Your task to perform on an android device: move an email to a new category in the gmail app Image 0: 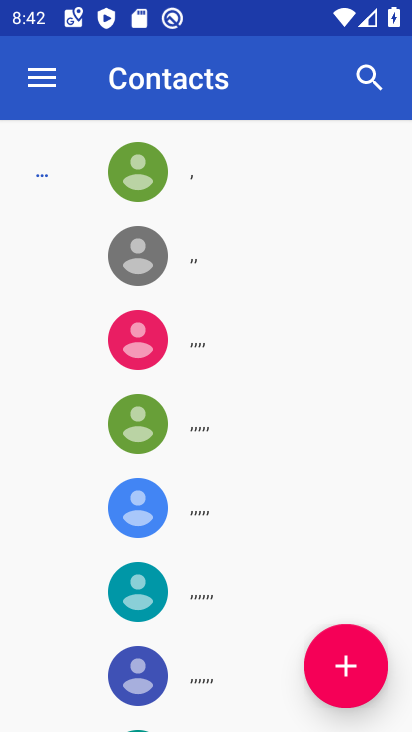
Step 0: press home button
Your task to perform on an android device: move an email to a new category in the gmail app Image 1: 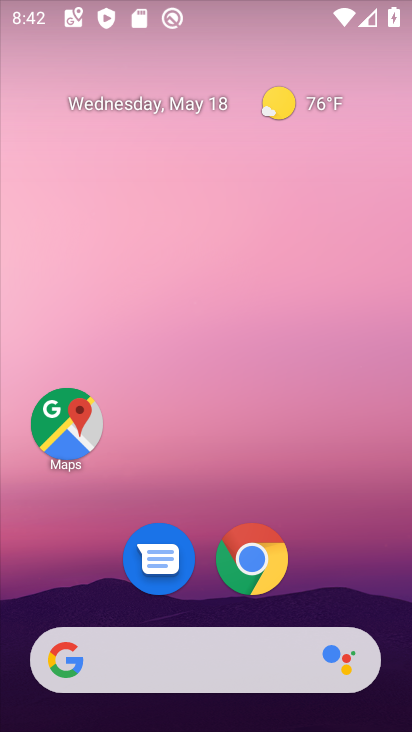
Step 1: drag from (338, 561) to (350, 35)
Your task to perform on an android device: move an email to a new category in the gmail app Image 2: 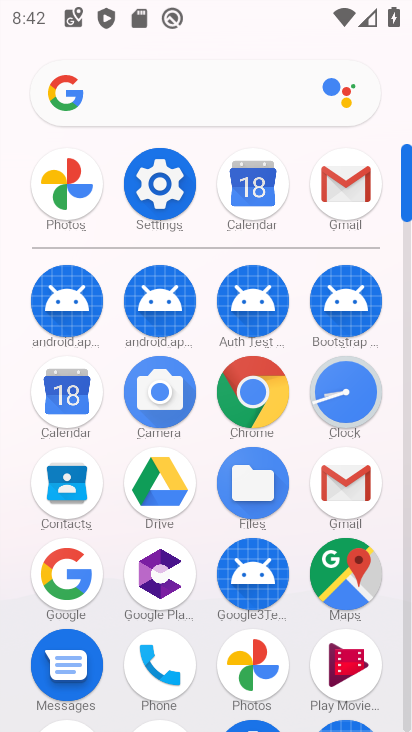
Step 2: click (346, 195)
Your task to perform on an android device: move an email to a new category in the gmail app Image 3: 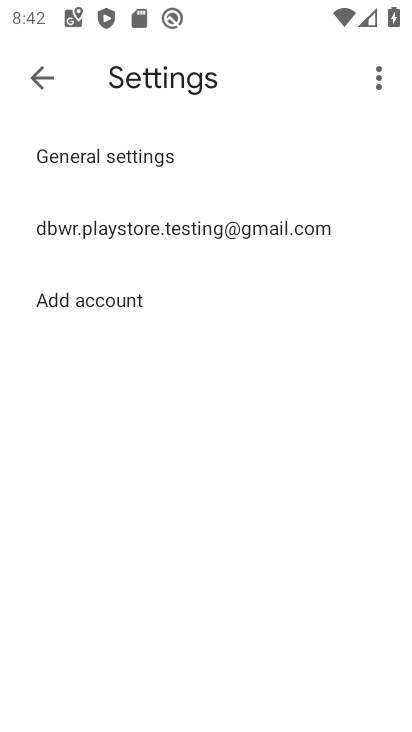
Step 3: click (132, 223)
Your task to perform on an android device: move an email to a new category in the gmail app Image 4: 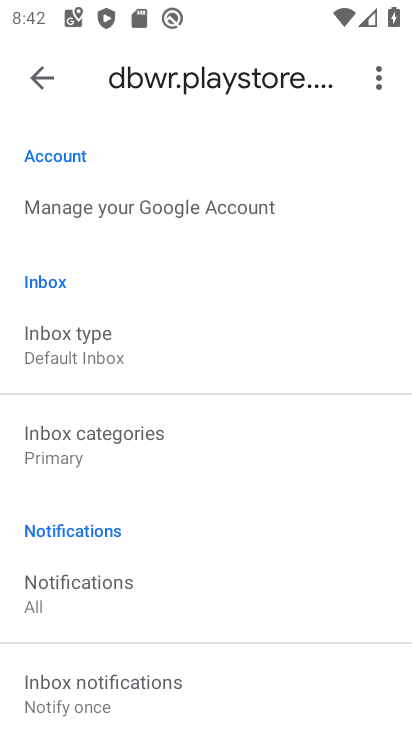
Step 4: press back button
Your task to perform on an android device: move an email to a new category in the gmail app Image 5: 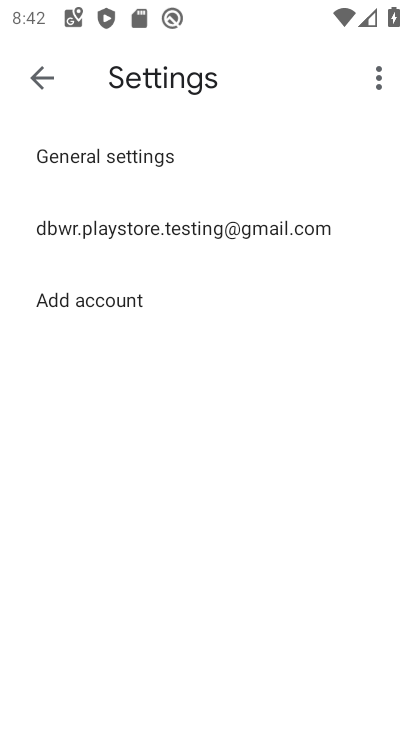
Step 5: press back button
Your task to perform on an android device: move an email to a new category in the gmail app Image 6: 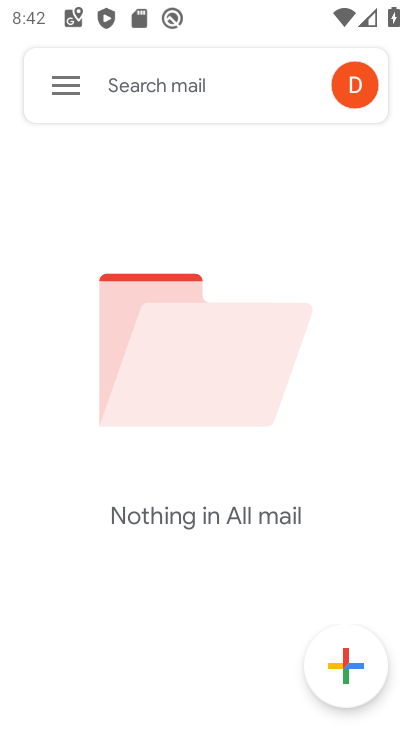
Step 6: click (66, 90)
Your task to perform on an android device: move an email to a new category in the gmail app Image 7: 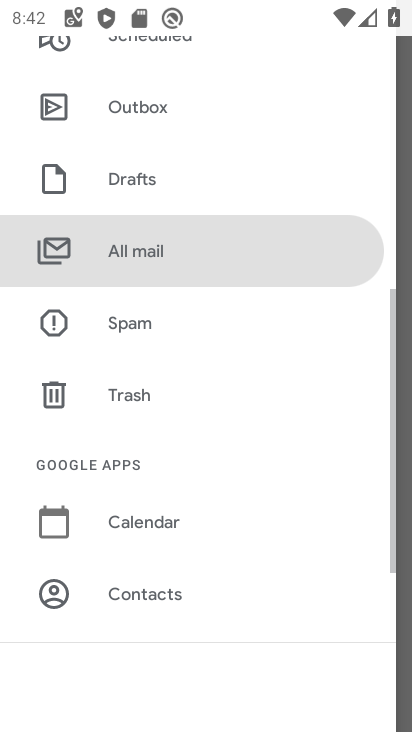
Step 7: click (158, 257)
Your task to perform on an android device: move an email to a new category in the gmail app Image 8: 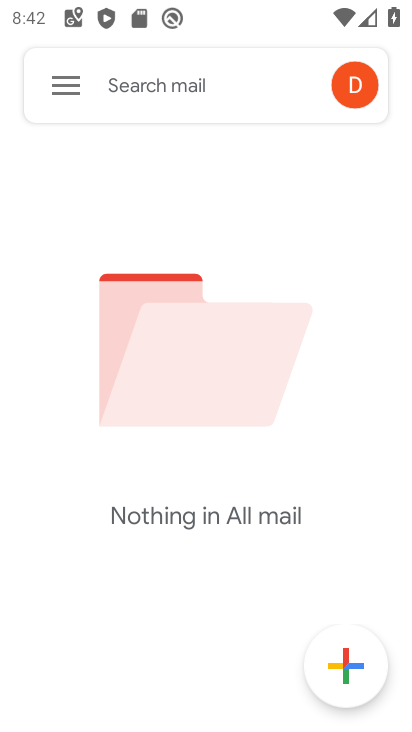
Step 8: task complete